Your task to perform on an android device: Check the news Image 0: 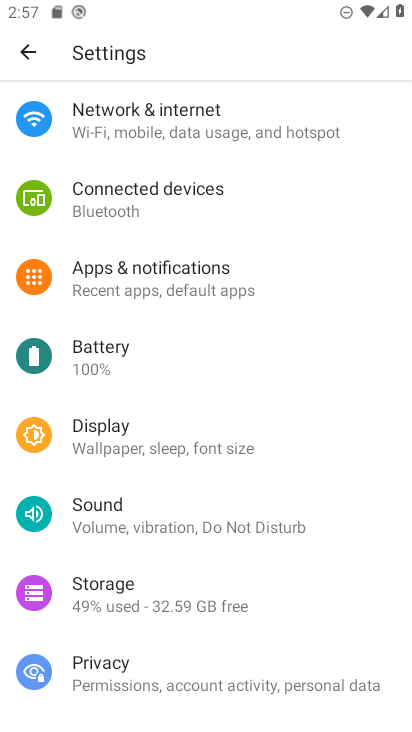
Step 0: press back button
Your task to perform on an android device: Check the news Image 1: 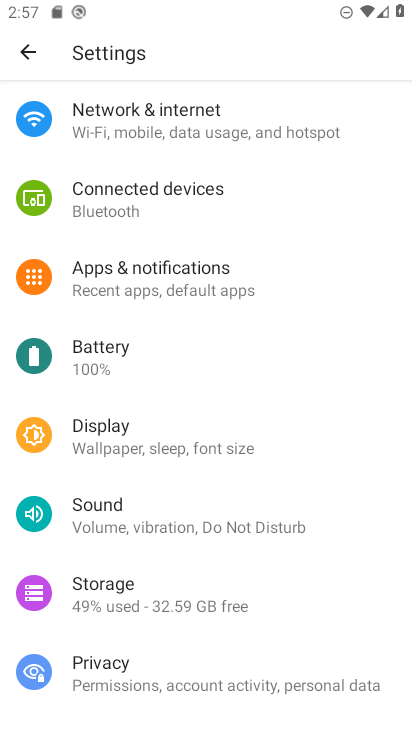
Step 1: task complete